Your task to perform on an android device: turn on data saver in the chrome app Image 0: 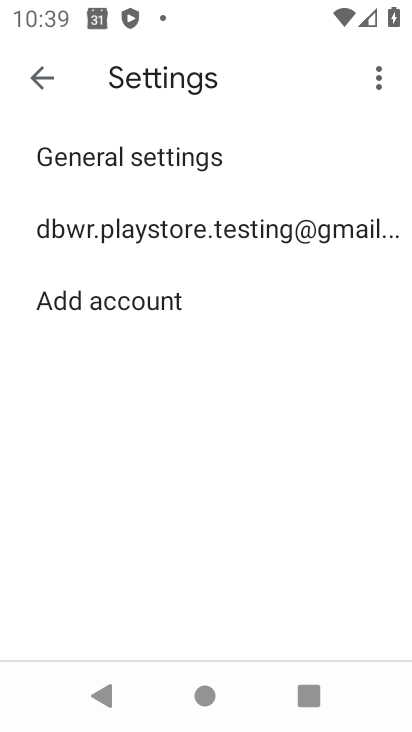
Step 0: press home button
Your task to perform on an android device: turn on data saver in the chrome app Image 1: 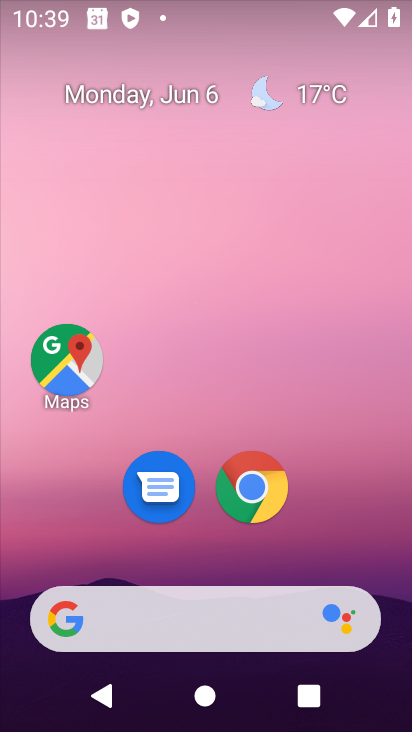
Step 1: click (252, 487)
Your task to perform on an android device: turn on data saver in the chrome app Image 2: 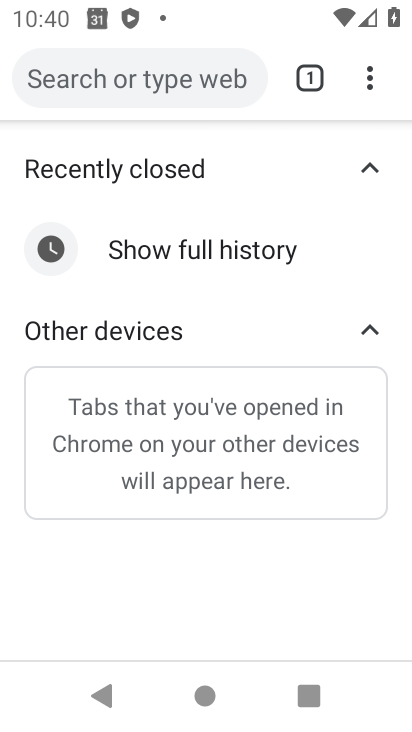
Step 2: click (377, 86)
Your task to perform on an android device: turn on data saver in the chrome app Image 3: 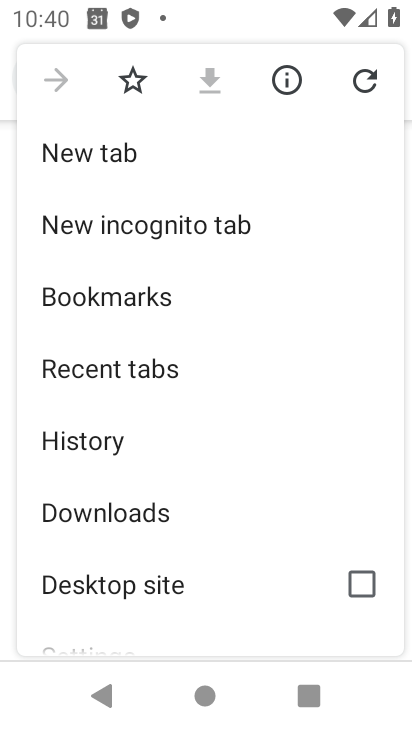
Step 3: drag from (106, 585) to (134, 231)
Your task to perform on an android device: turn on data saver in the chrome app Image 4: 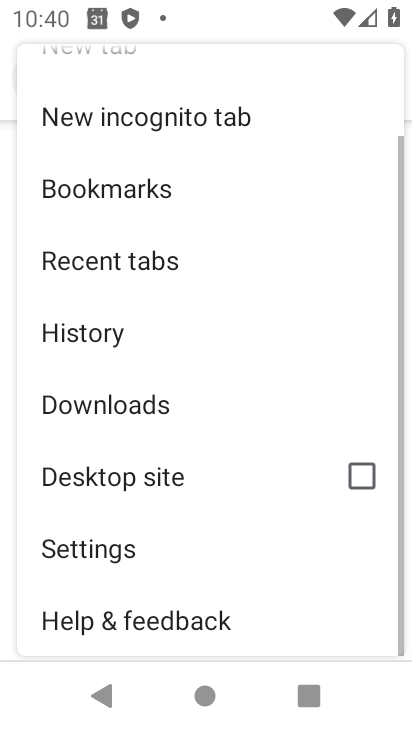
Step 4: click (97, 560)
Your task to perform on an android device: turn on data saver in the chrome app Image 5: 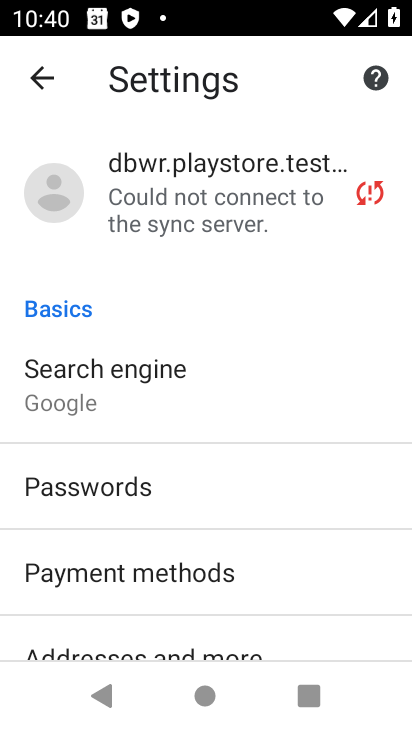
Step 5: drag from (210, 538) to (300, 177)
Your task to perform on an android device: turn on data saver in the chrome app Image 6: 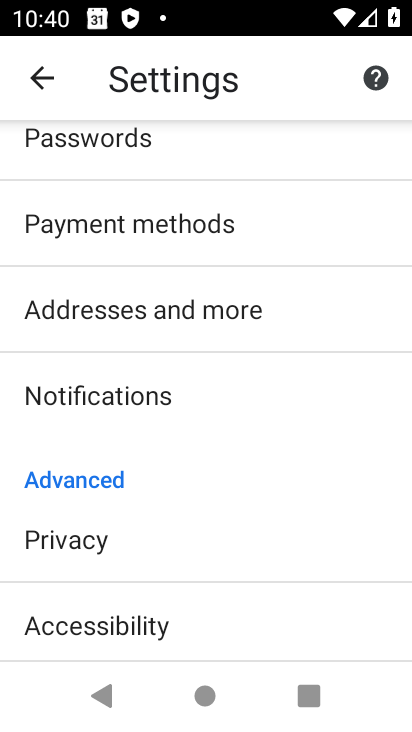
Step 6: drag from (180, 565) to (254, 211)
Your task to perform on an android device: turn on data saver in the chrome app Image 7: 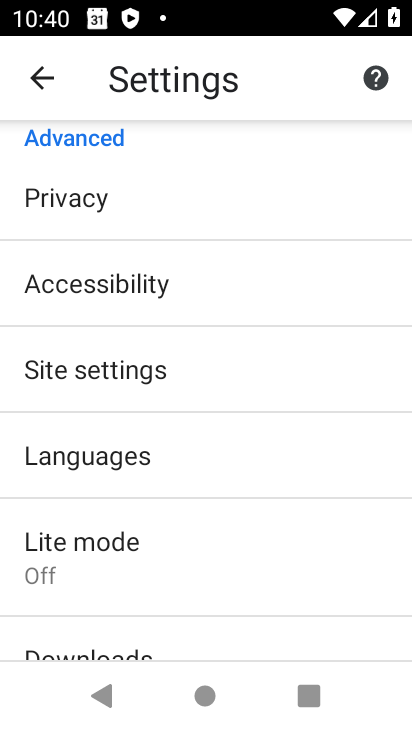
Step 7: click (114, 566)
Your task to perform on an android device: turn on data saver in the chrome app Image 8: 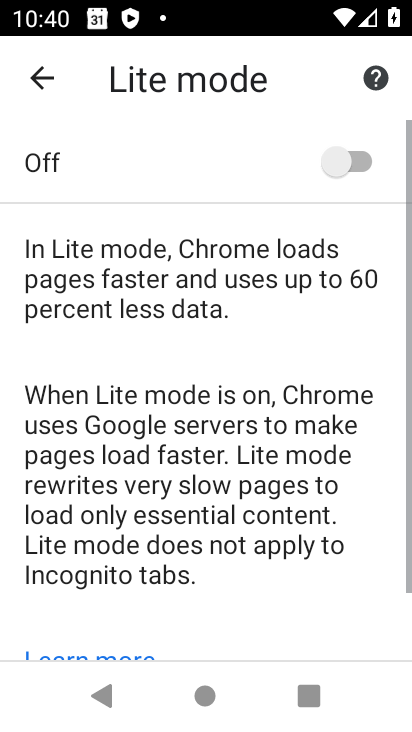
Step 8: click (344, 157)
Your task to perform on an android device: turn on data saver in the chrome app Image 9: 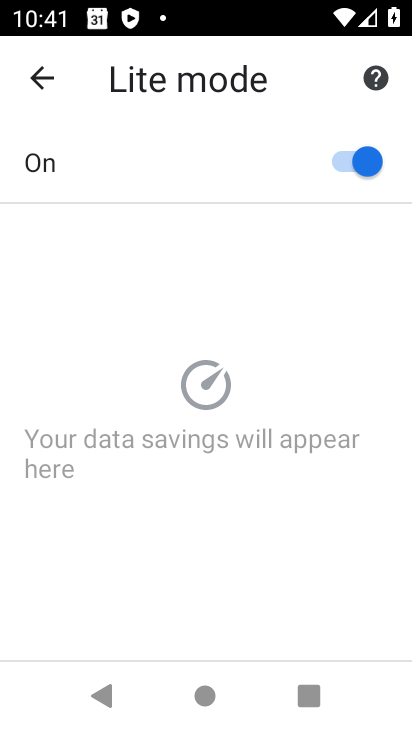
Step 9: task complete